Your task to perform on an android device: Open Chrome and go to the settings page Image 0: 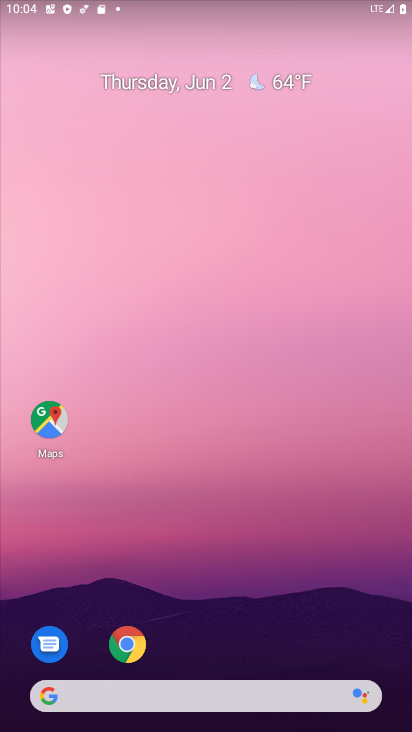
Step 0: drag from (244, 591) to (258, 7)
Your task to perform on an android device: Open Chrome and go to the settings page Image 1: 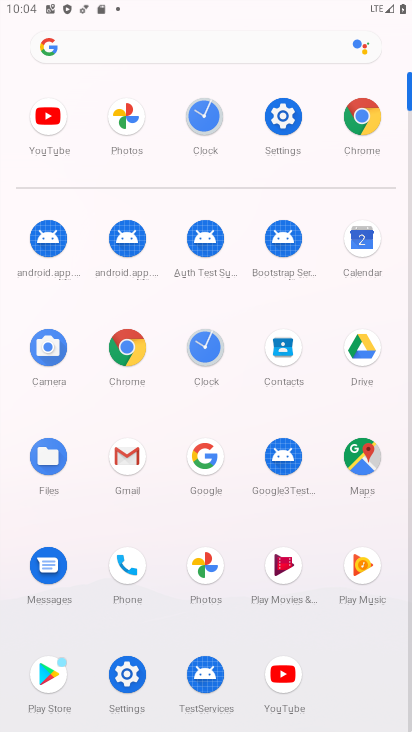
Step 1: click (116, 361)
Your task to perform on an android device: Open Chrome and go to the settings page Image 2: 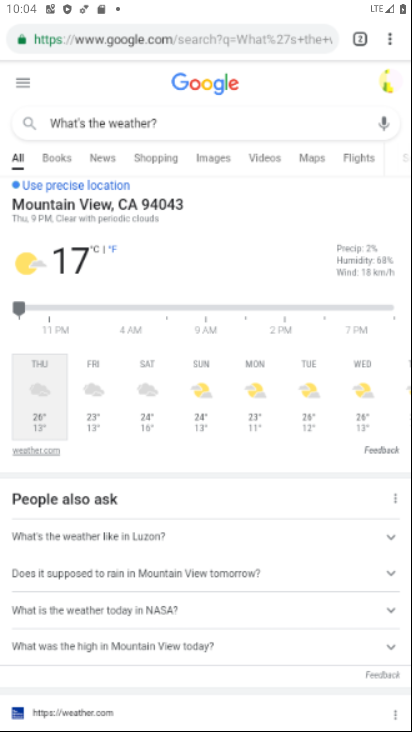
Step 2: task complete